Your task to perform on an android device: What is the news today? Image 0: 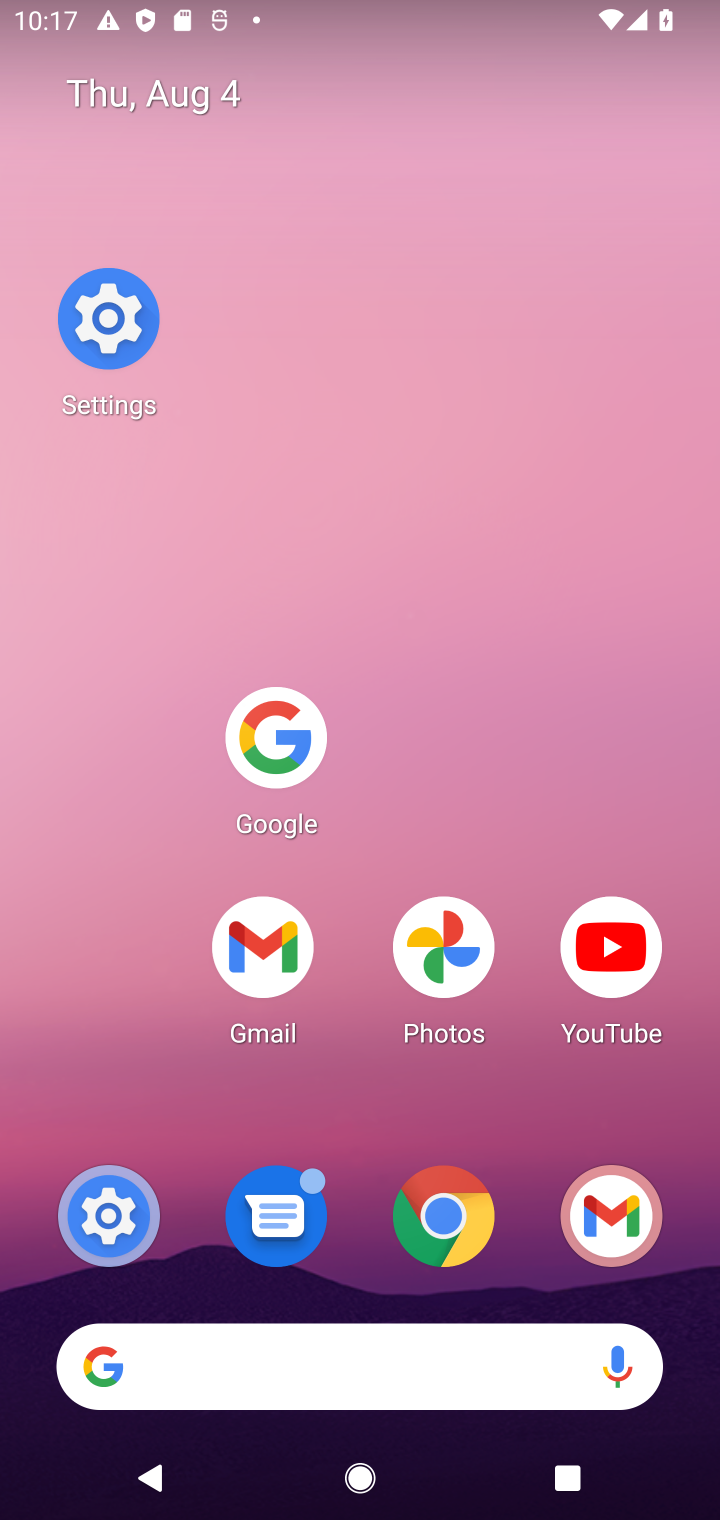
Step 0: click (283, 731)
Your task to perform on an android device: What is the news today? Image 1: 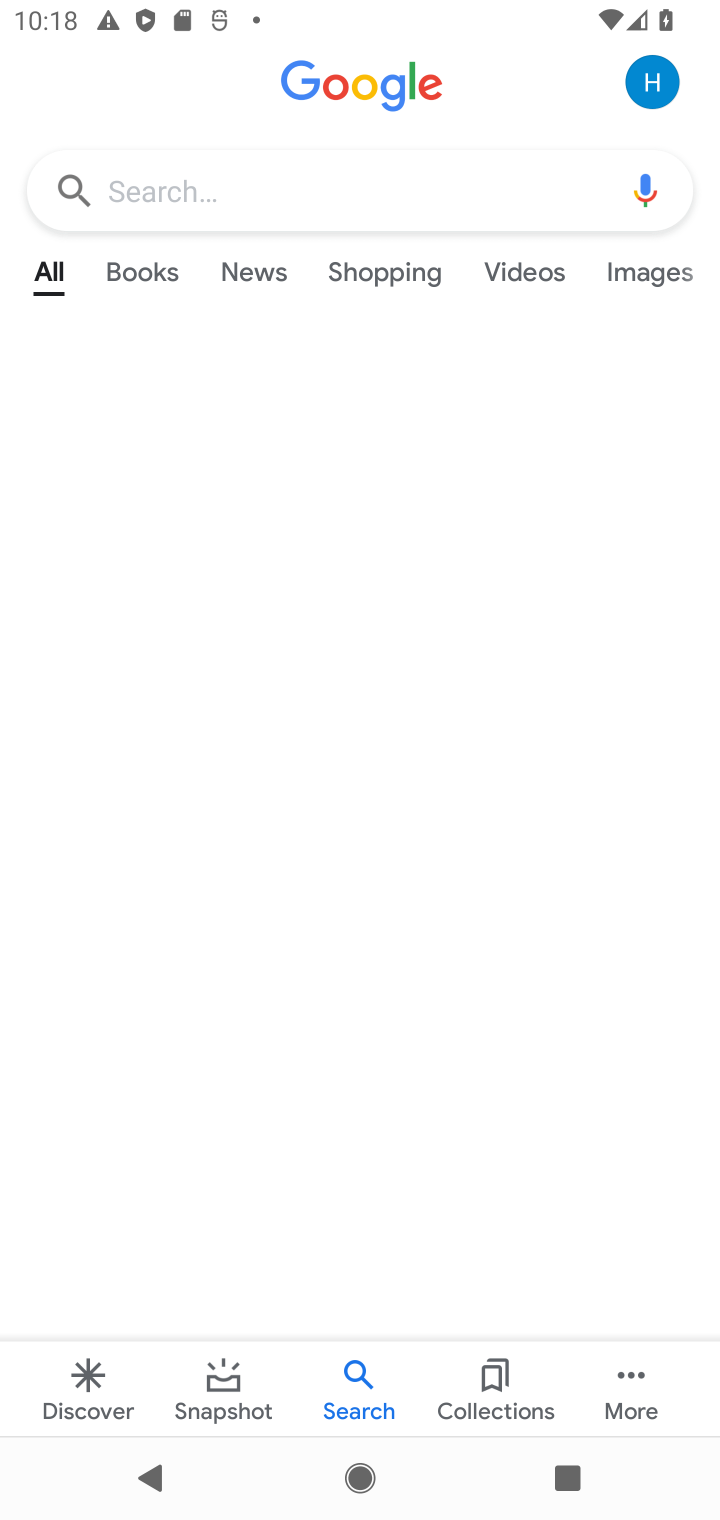
Step 1: press home button
Your task to perform on an android device: What is the news today? Image 2: 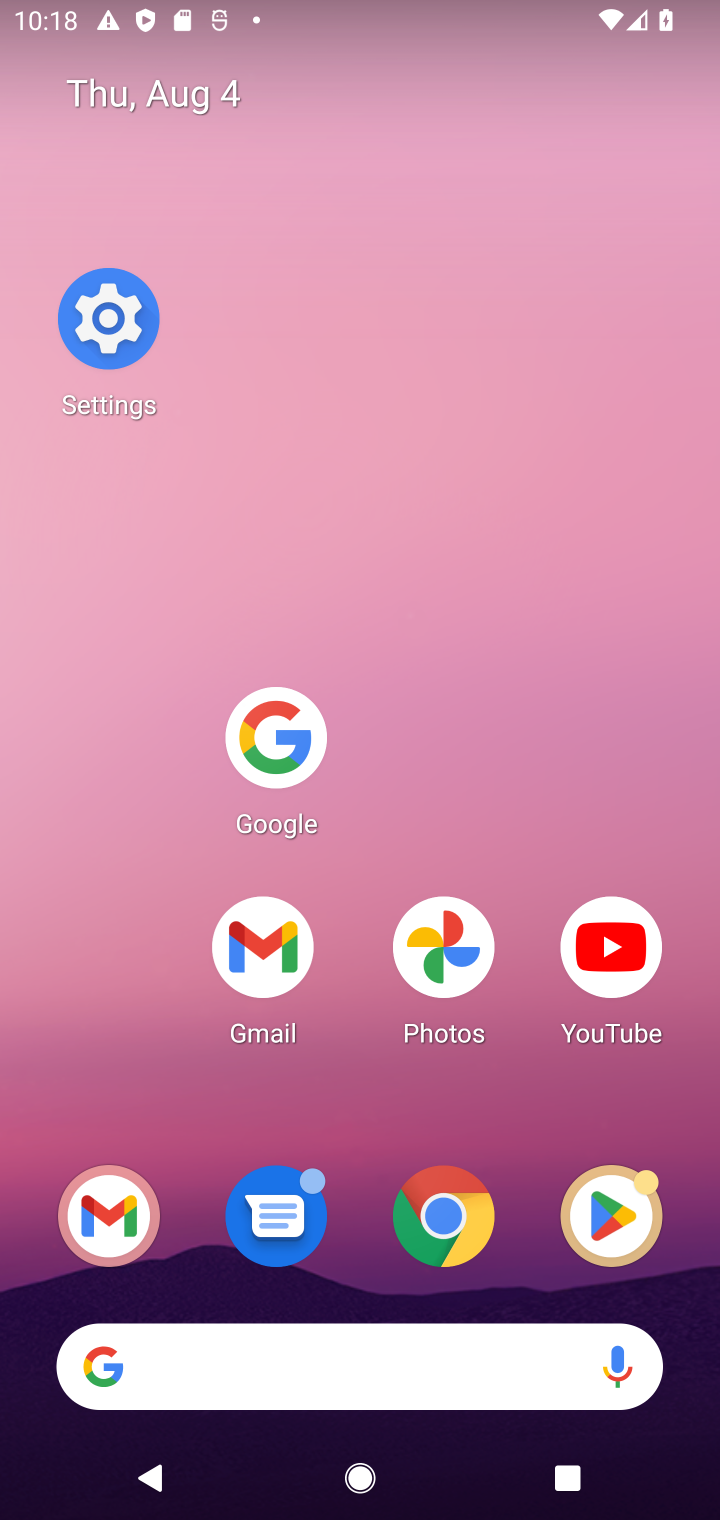
Step 2: click (244, 685)
Your task to perform on an android device: What is the news today? Image 3: 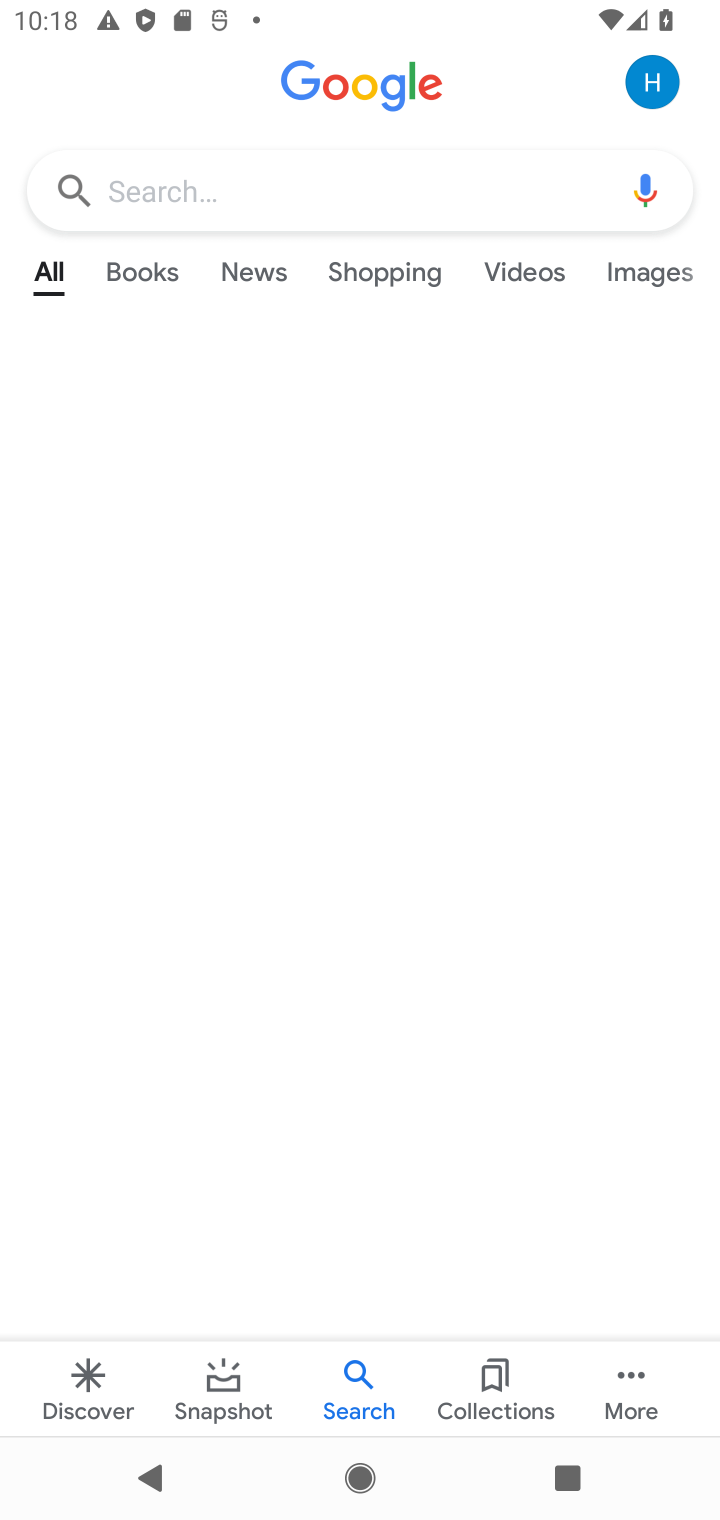
Step 3: click (195, 199)
Your task to perform on an android device: What is the news today? Image 4: 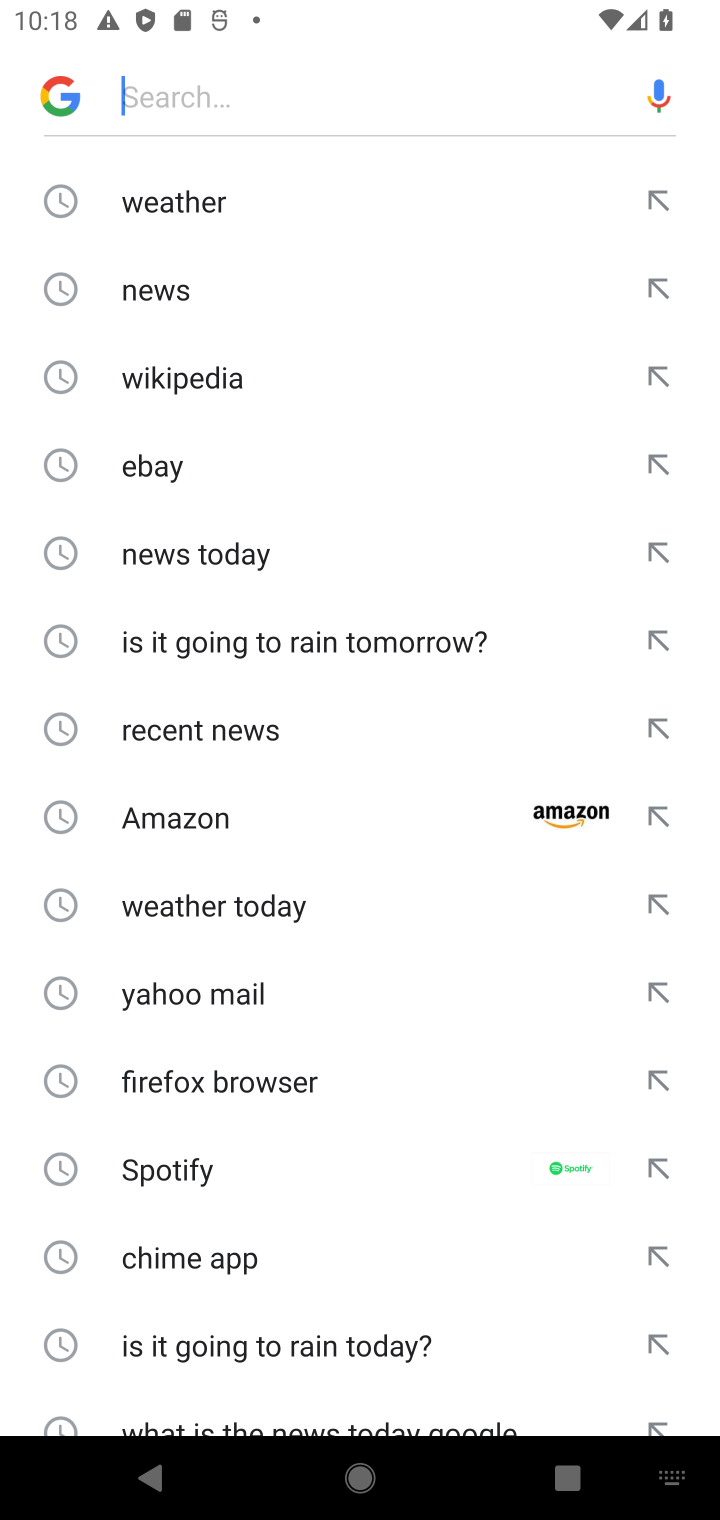
Step 4: click (166, 276)
Your task to perform on an android device: What is the news today? Image 5: 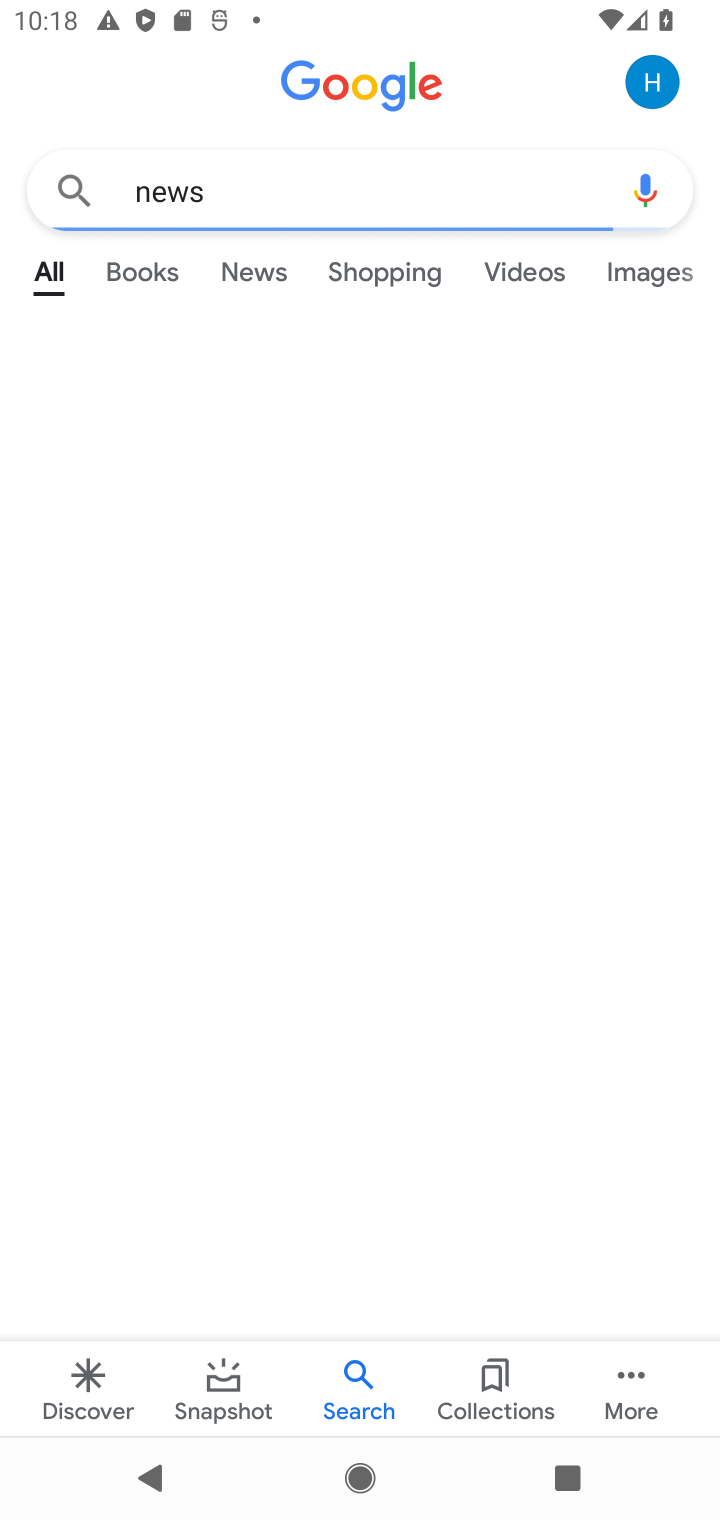
Step 5: task complete